Your task to perform on an android device: When is my next appointment? Image 0: 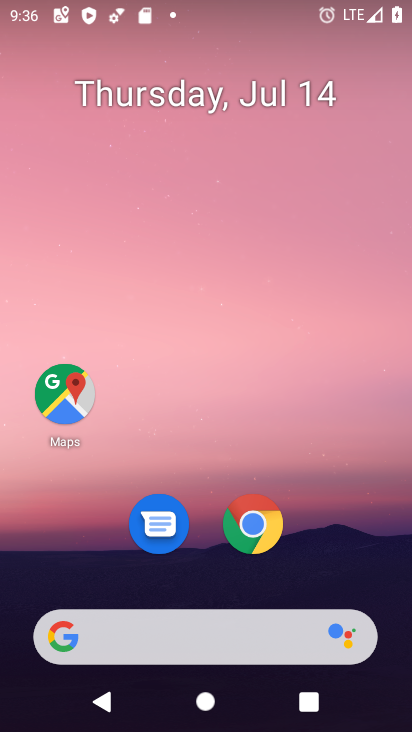
Step 0: drag from (339, 565) to (359, 24)
Your task to perform on an android device: When is my next appointment? Image 1: 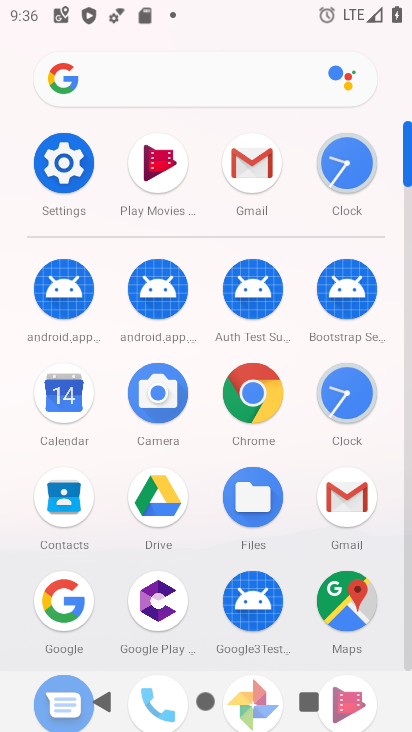
Step 1: click (74, 393)
Your task to perform on an android device: When is my next appointment? Image 2: 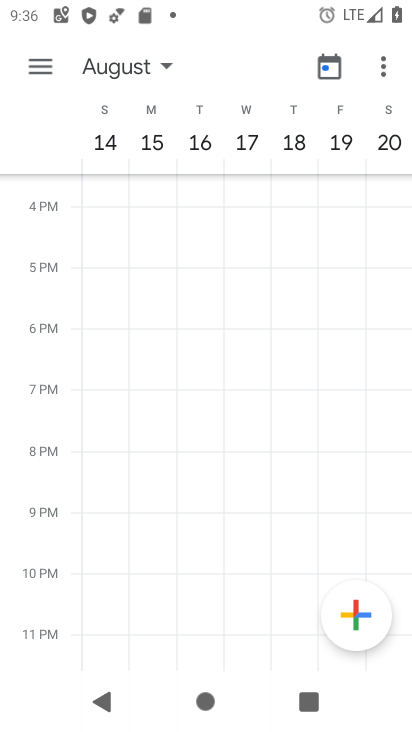
Step 2: drag from (92, 289) to (408, 351)
Your task to perform on an android device: When is my next appointment? Image 3: 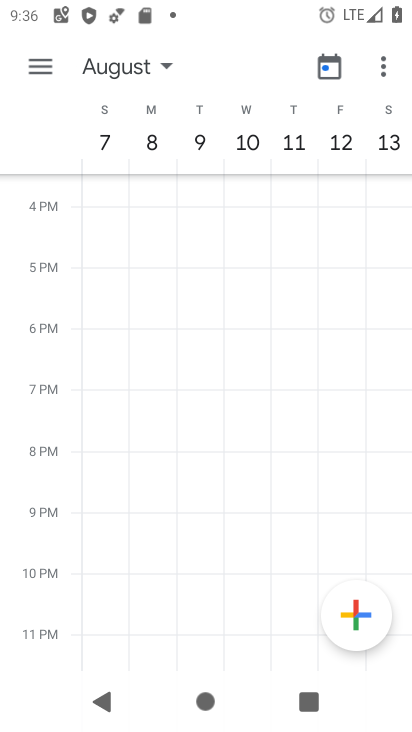
Step 3: click (39, 69)
Your task to perform on an android device: When is my next appointment? Image 4: 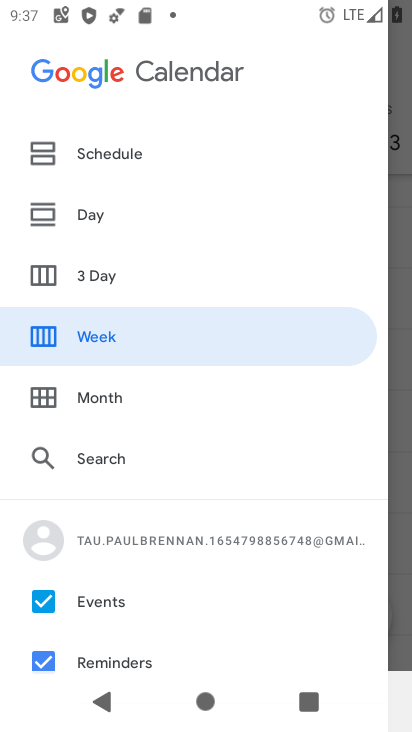
Step 4: click (50, 149)
Your task to perform on an android device: When is my next appointment? Image 5: 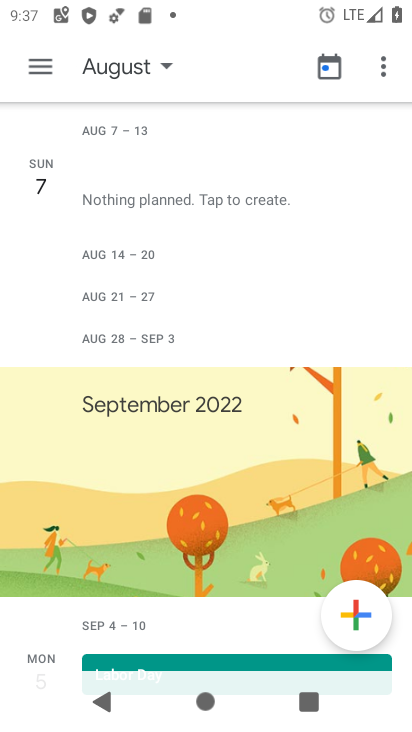
Step 5: task complete